Your task to perform on an android device: Go to accessibility settings Image 0: 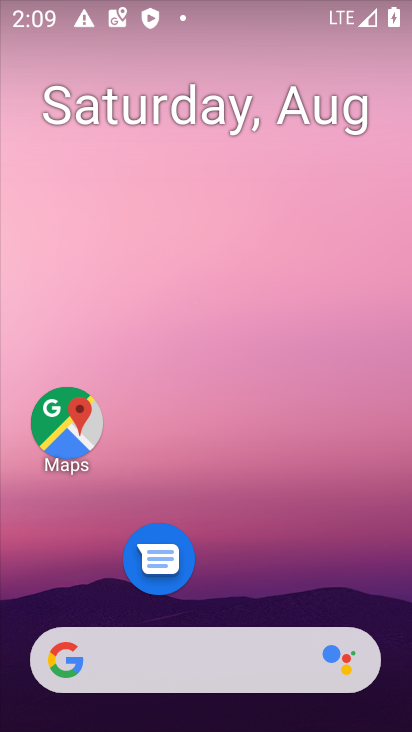
Step 0: drag from (198, 572) to (182, 123)
Your task to perform on an android device: Go to accessibility settings Image 1: 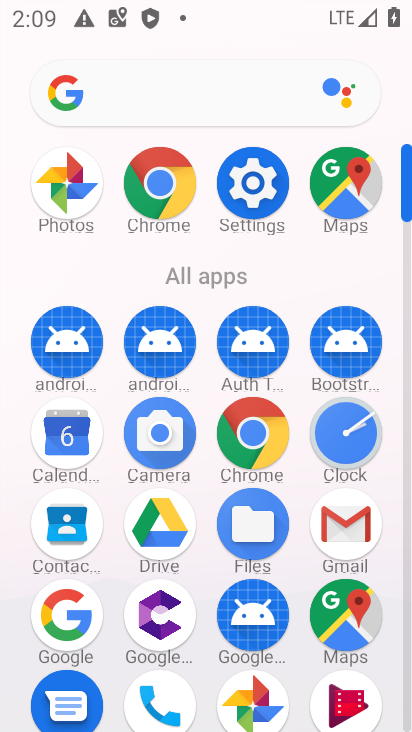
Step 1: click (247, 204)
Your task to perform on an android device: Go to accessibility settings Image 2: 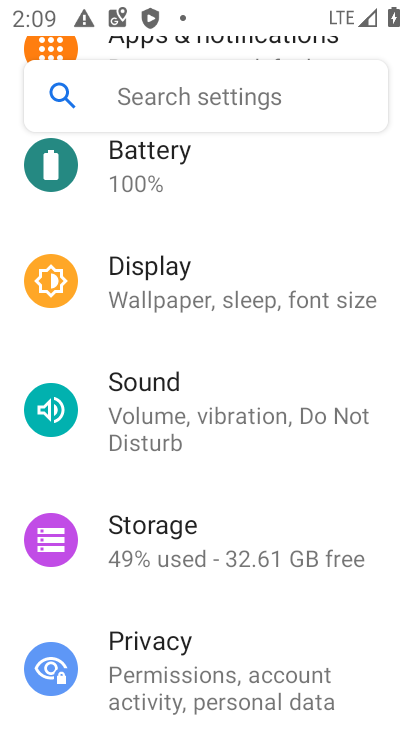
Step 2: drag from (172, 401) to (265, 78)
Your task to perform on an android device: Go to accessibility settings Image 3: 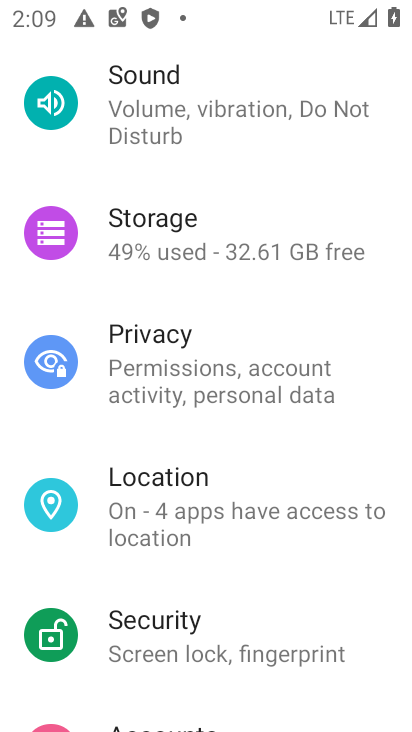
Step 3: drag from (223, 493) to (212, 147)
Your task to perform on an android device: Go to accessibility settings Image 4: 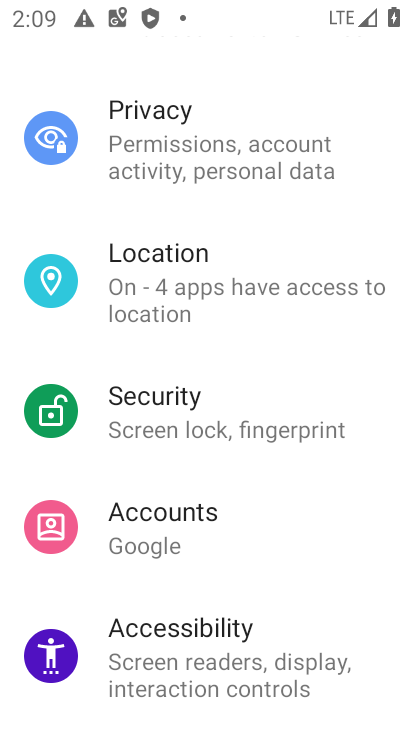
Step 4: click (184, 614)
Your task to perform on an android device: Go to accessibility settings Image 5: 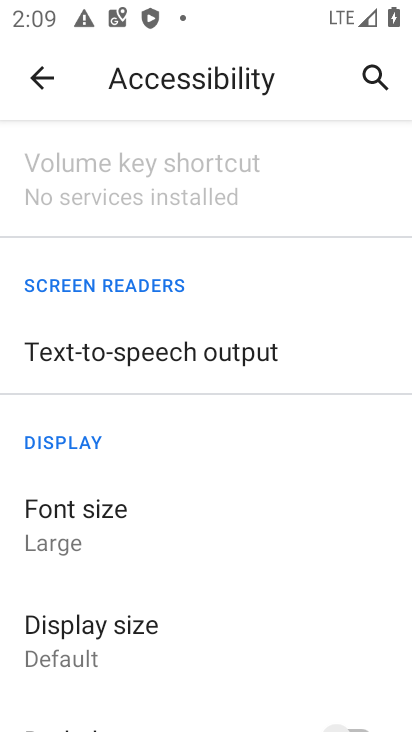
Step 5: task complete